Your task to perform on an android device: open app "Upside-Cash back on gas & food" (install if not already installed) Image 0: 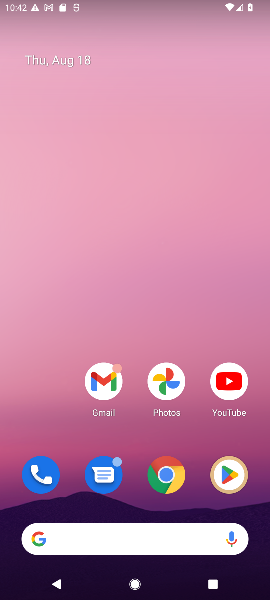
Step 0: drag from (155, 516) to (86, 103)
Your task to perform on an android device: open app "Upside-Cash back on gas & food" (install if not already installed) Image 1: 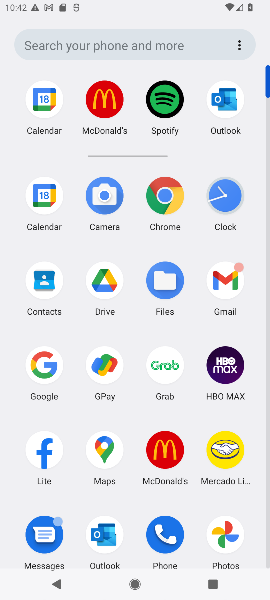
Step 1: drag from (135, 508) to (108, 155)
Your task to perform on an android device: open app "Upside-Cash back on gas & food" (install if not already installed) Image 2: 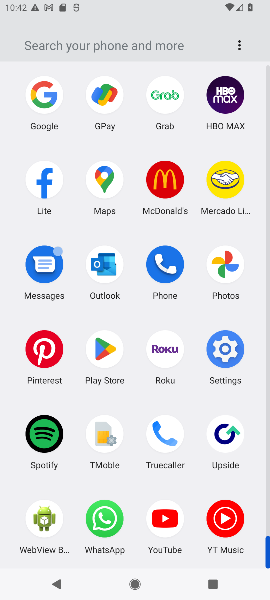
Step 2: click (94, 371)
Your task to perform on an android device: open app "Upside-Cash back on gas & food" (install if not already installed) Image 3: 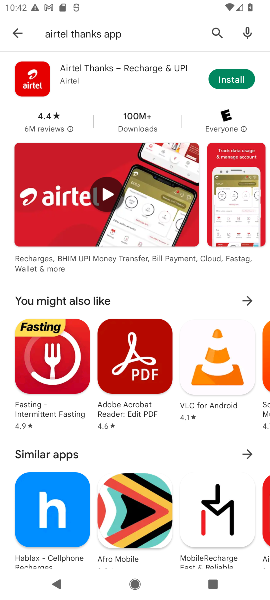
Step 3: click (9, 24)
Your task to perform on an android device: open app "Upside-Cash back on gas & food" (install if not already installed) Image 4: 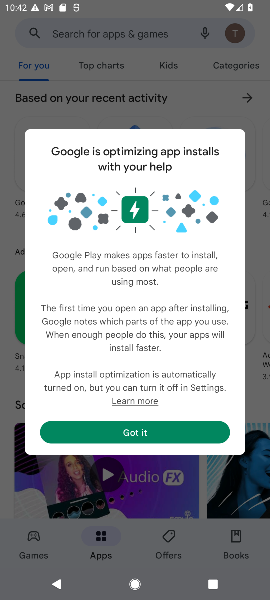
Step 4: click (168, 433)
Your task to perform on an android device: open app "Upside-Cash back on gas & food" (install if not already installed) Image 5: 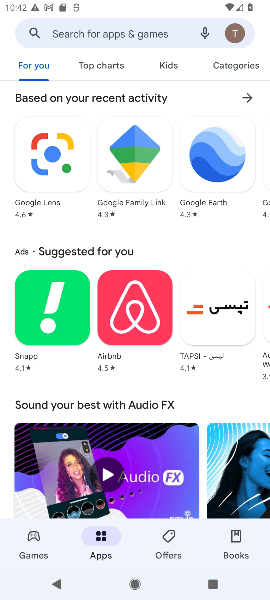
Step 5: click (110, 41)
Your task to perform on an android device: open app "Upside-Cash back on gas & food" (install if not already installed) Image 6: 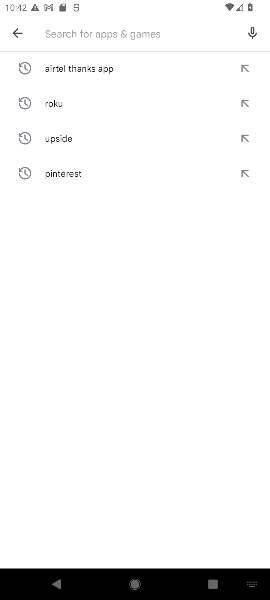
Step 6: type "Upside"
Your task to perform on an android device: open app "Upside-Cash back on gas & food" (install if not already installed) Image 7: 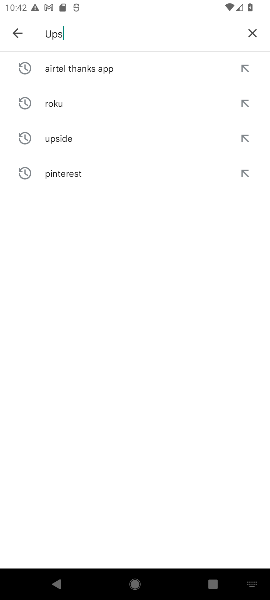
Step 7: type ""
Your task to perform on an android device: open app "Upside-Cash back on gas & food" (install if not already installed) Image 8: 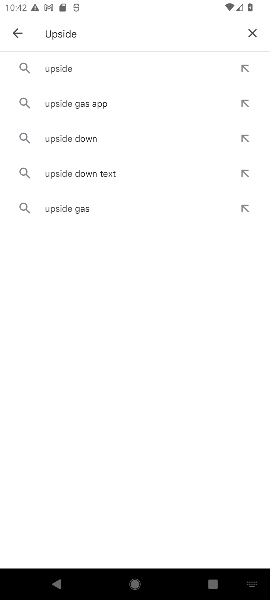
Step 8: click (40, 76)
Your task to perform on an android device: open app "Upside-Cash back on gas & food" (install if not already installed) Image 9: 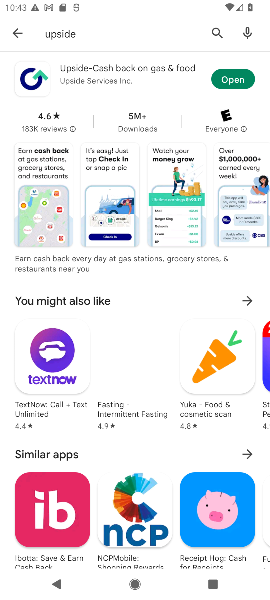
Step 9: click (236, 81)
Your task to perform on an android device: open app "Upside-Cash back on gas & food" (install if not already installed) Image 10: 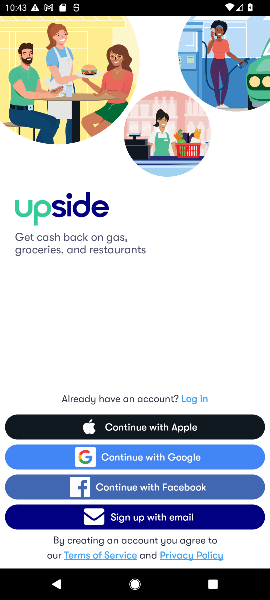
Step 10: task complete